Your task to perform on an android device: turn on bluetooth scan Image 0: 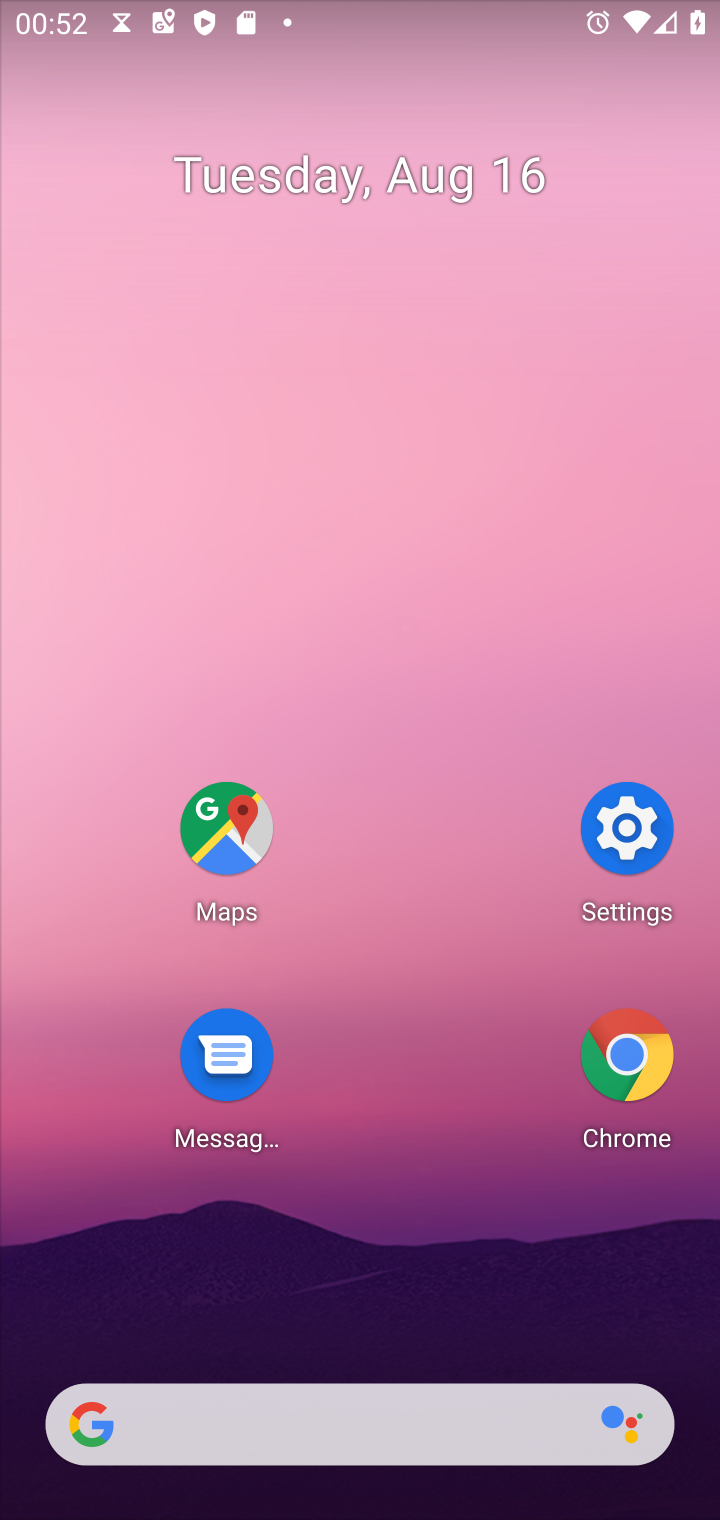
Step 0: click (636, 811)
Your task to perform on an android device: turn on bluetooth scan Image 1: 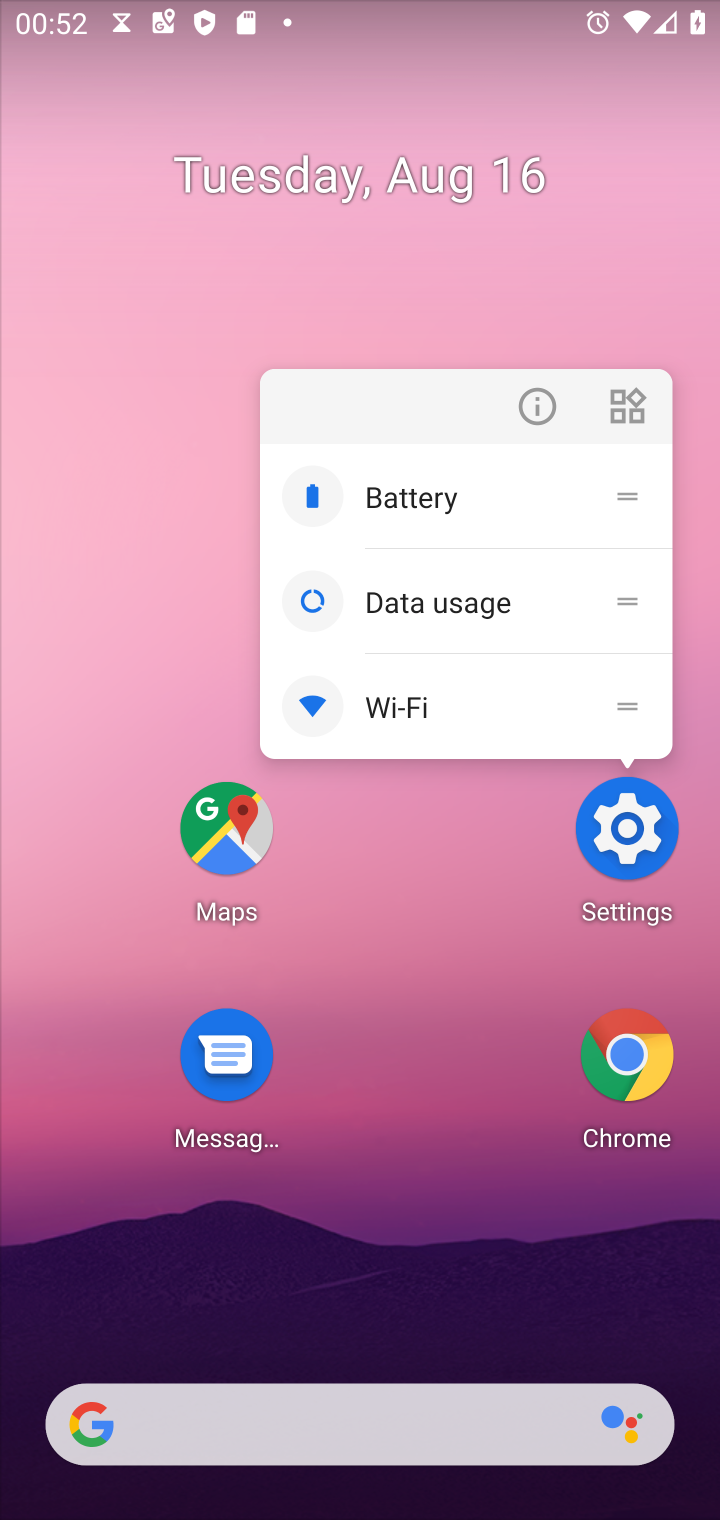
Step 1: click (636, 826)
Your task to perform on an android device: turn on bluetooth scan Image 2: 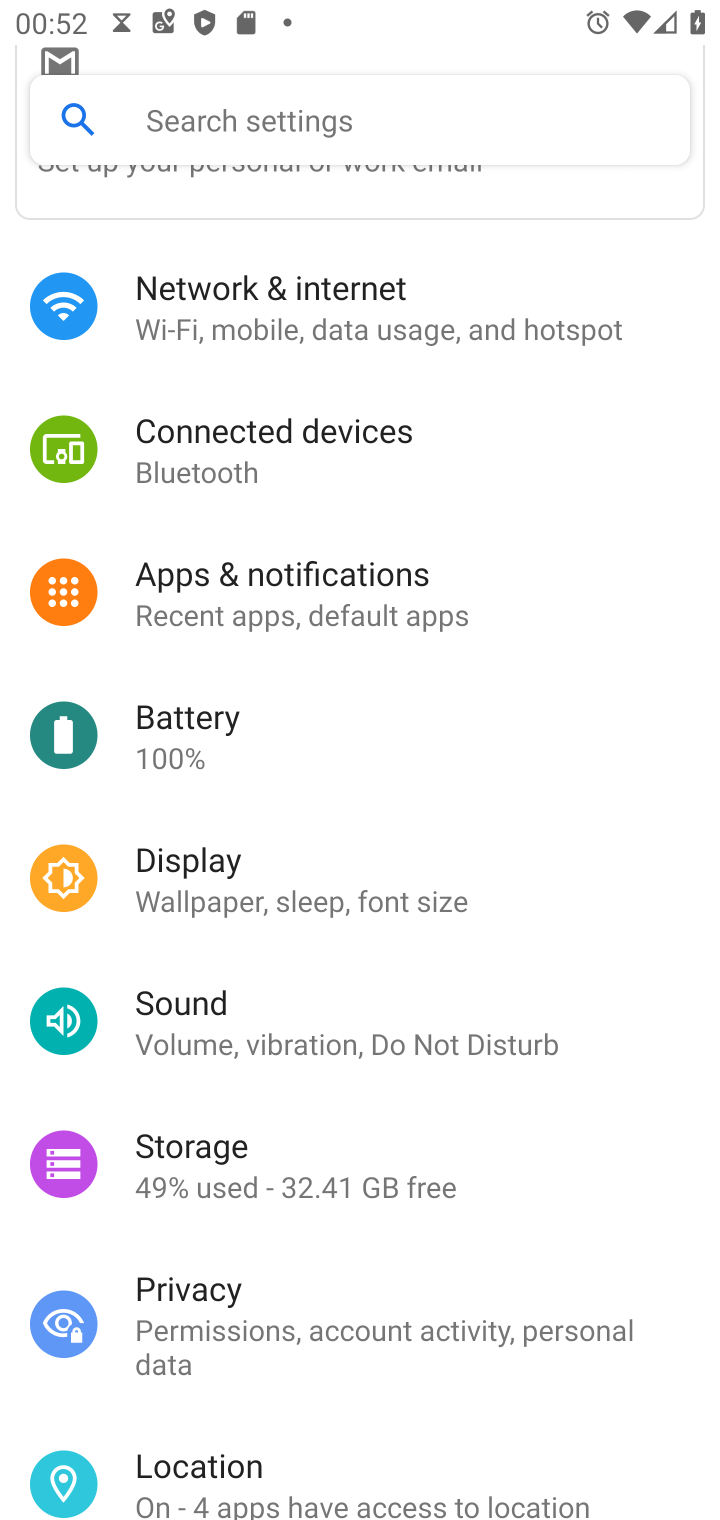
Step 2: click (215, 1454)
Your task to perform on an android device: turn on bluetooth scan Image 3: 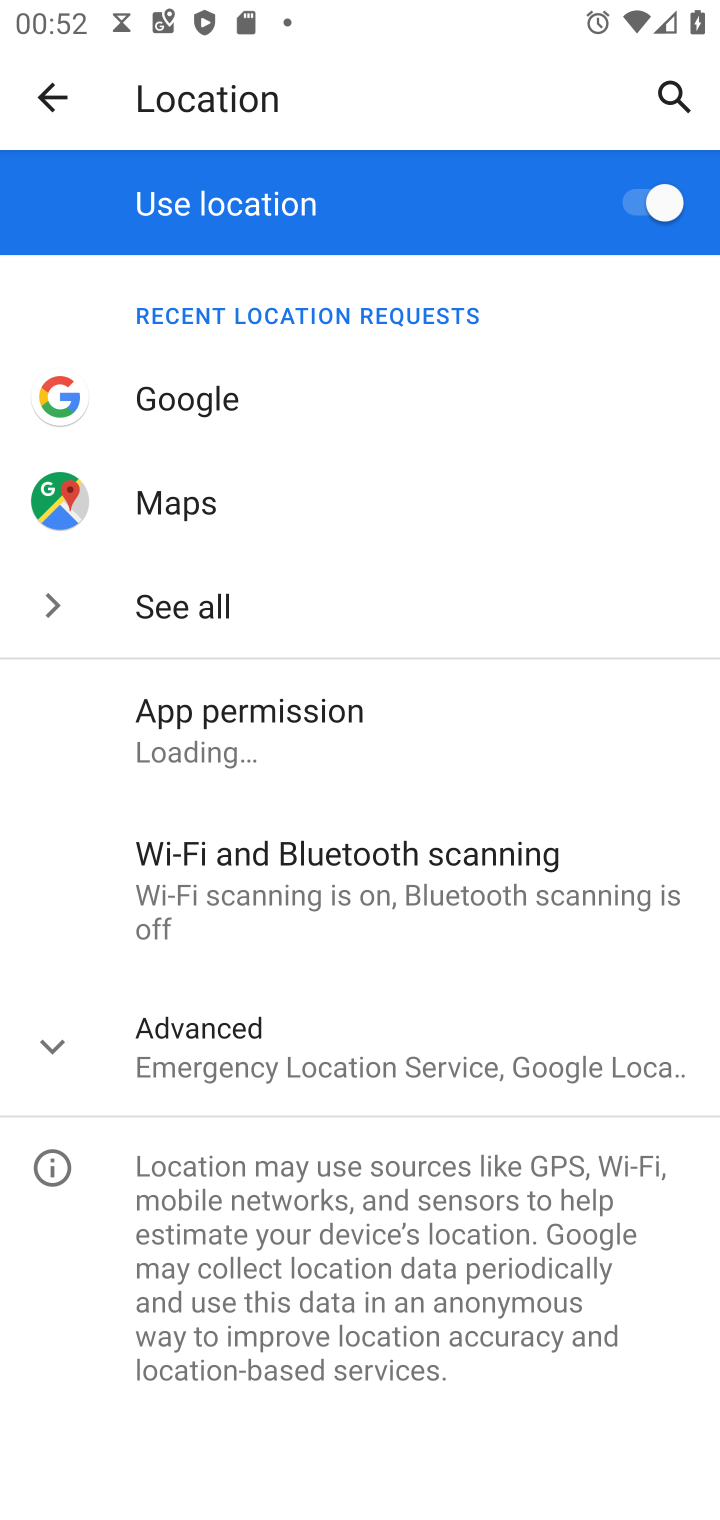
Step 3: click (339, 1027)
Your task to perform on an android device: turn on bluetooth scan Image 4: 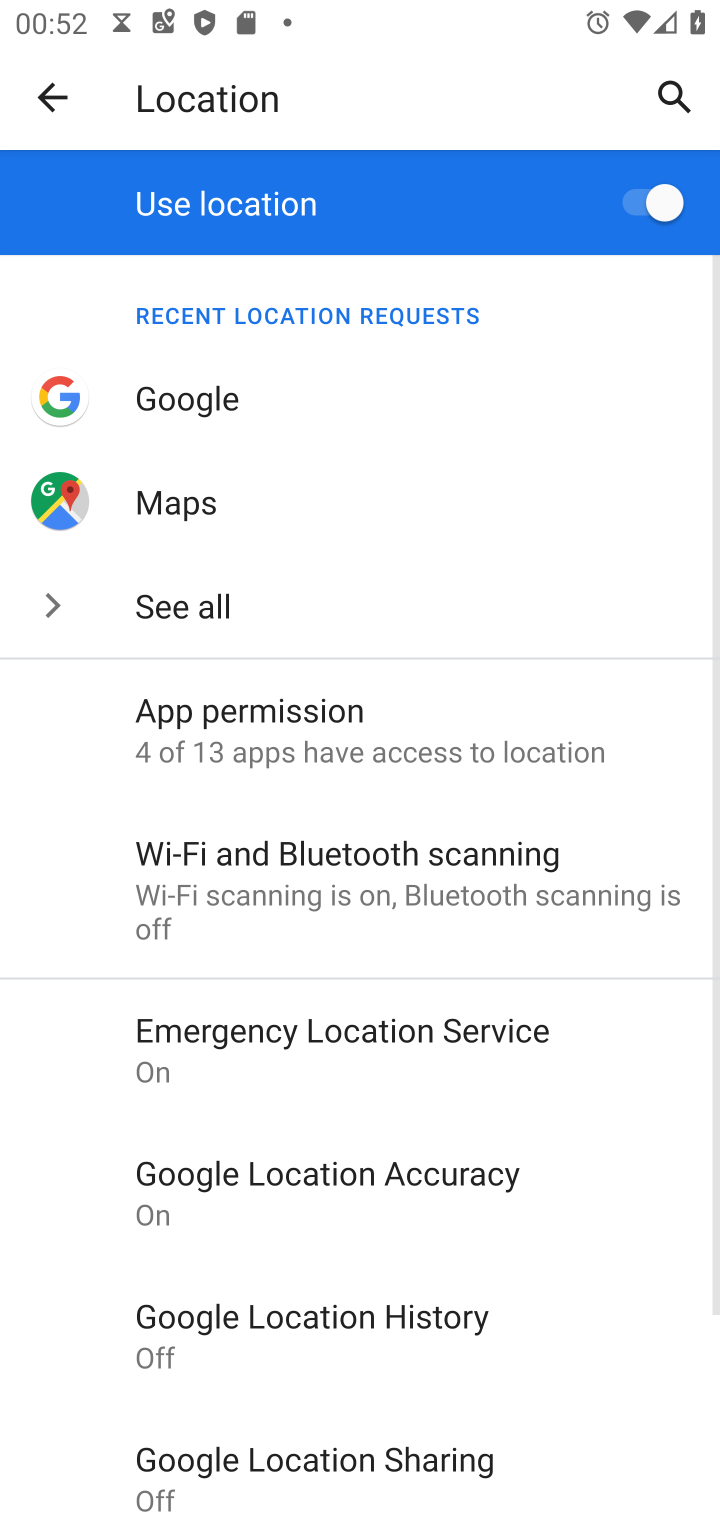
Step 4: click (396, 862)
Your task to perform on an android device: turn on bluetooth scan Image 5: 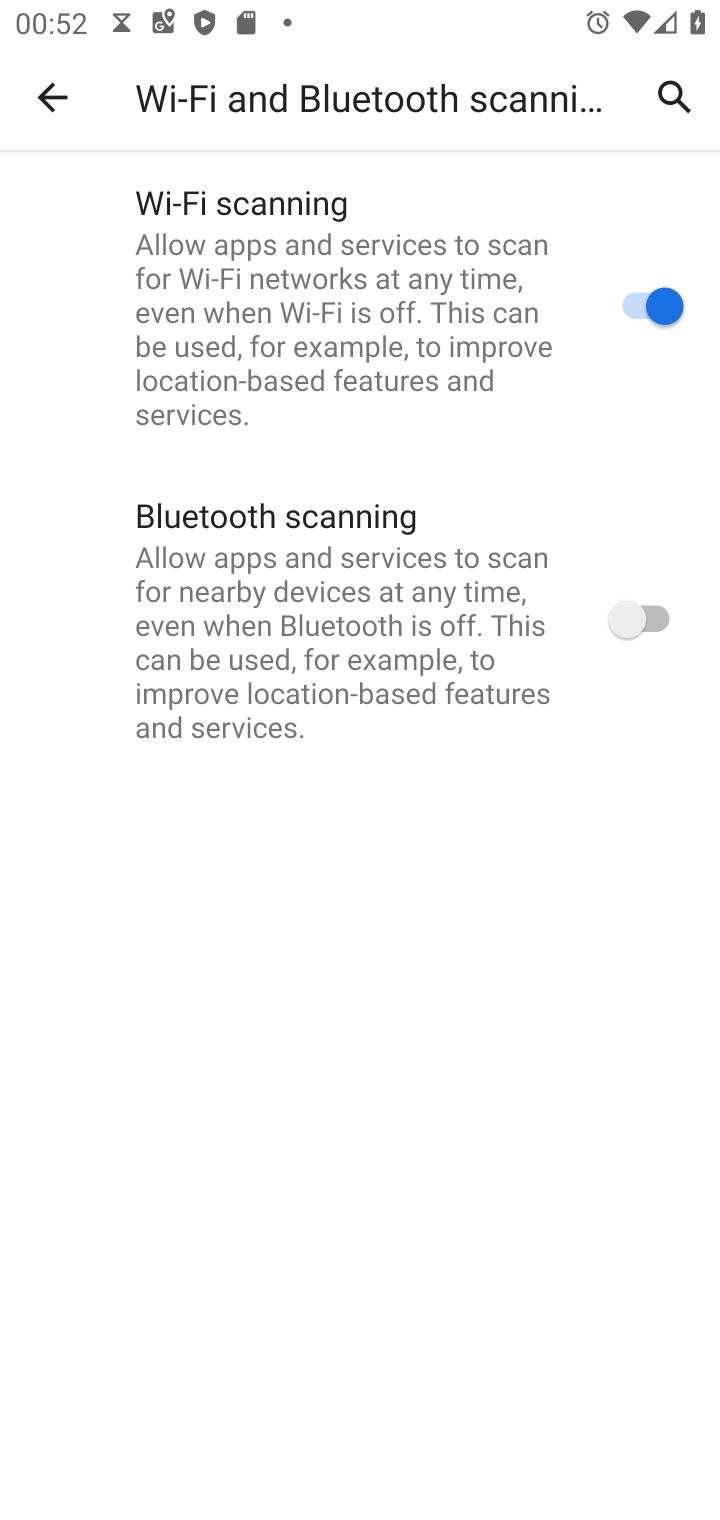
Step 5: click (649, 608)
Your task to perform on an android device: turn on bluetooth scan Image 6: 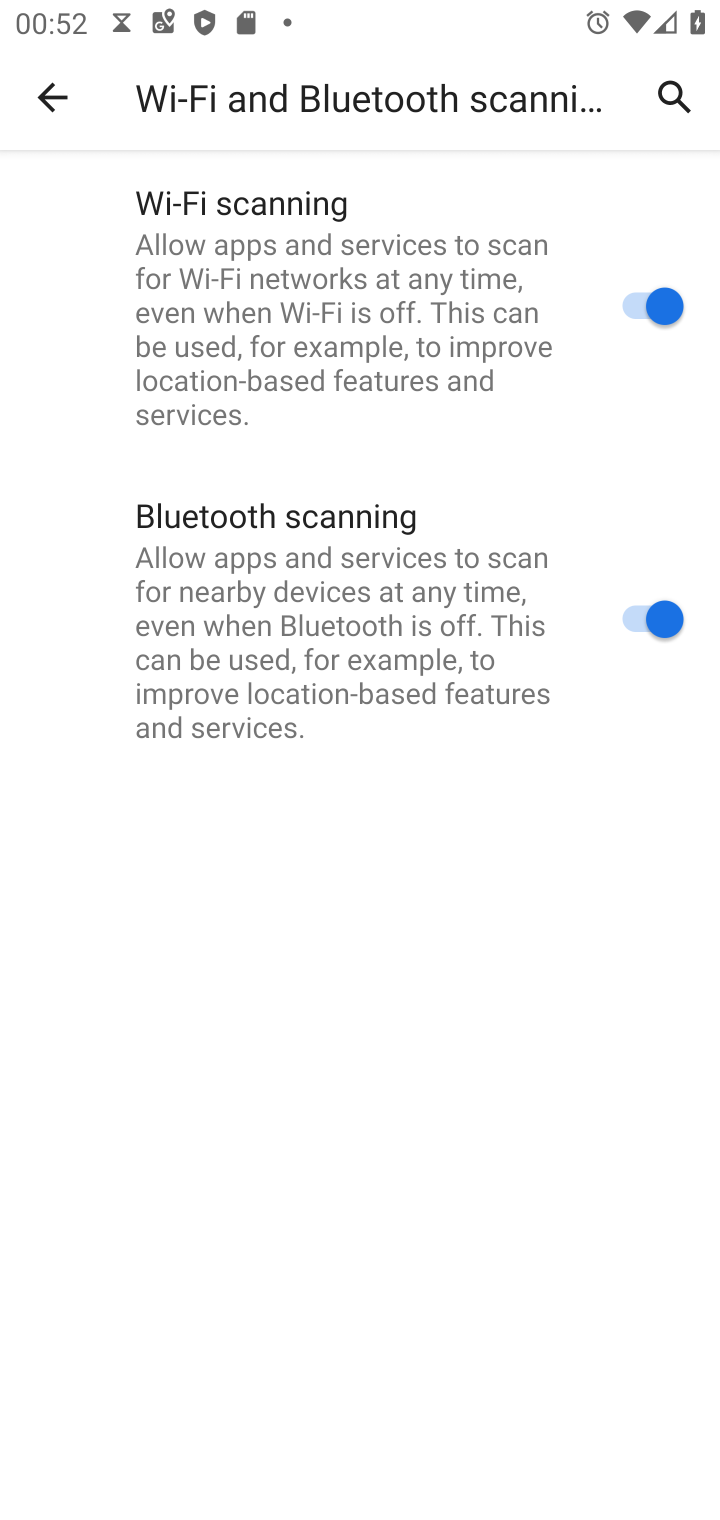
Step 6: task complete